Your task to perform on an android device: find which apps use the phone's location Image 0: 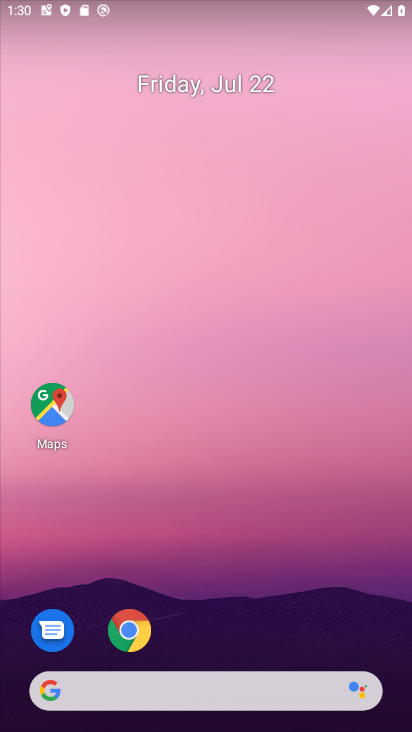
Step 0: drag from (170, 316) to (181, 134)
Your task to perform on an android device: find which apps use the phone's location Image 1: 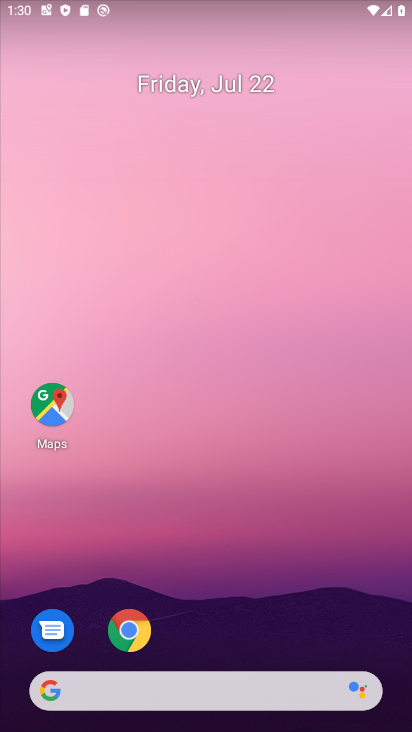
Step 1: drag from (153, 229) to (189, 49)
Your task to perform on an android device: find which apps use the phone's location Image 2: 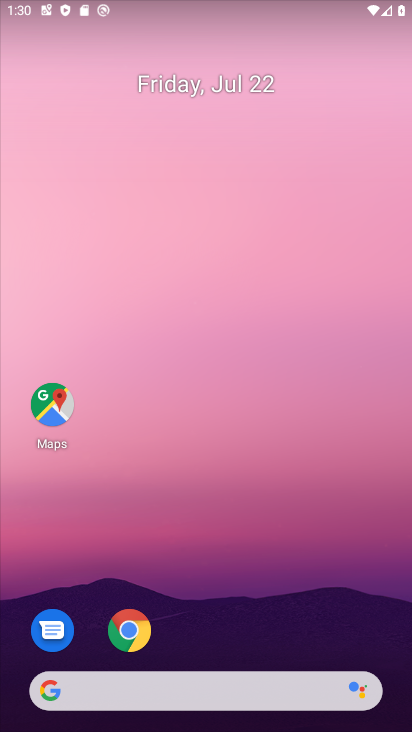
Step 2: drag from (212, 558) to (209, 14)
Your task to perform on an android device: find which apps use the phone's location Image 3: 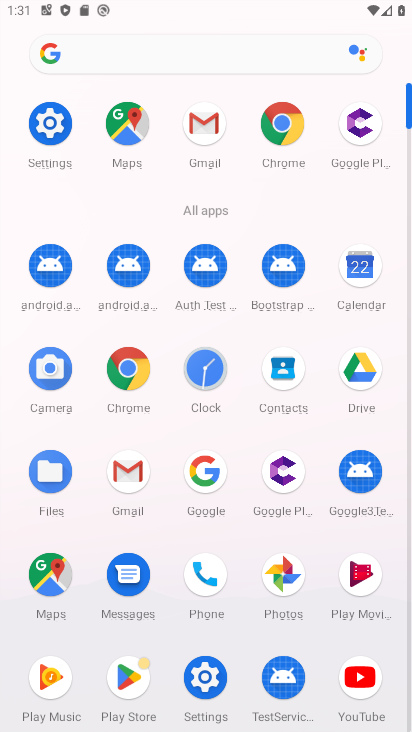
Step 3: click (58, 123)
Your task to perform on an android device: find which apps use the phone's location Image 4: 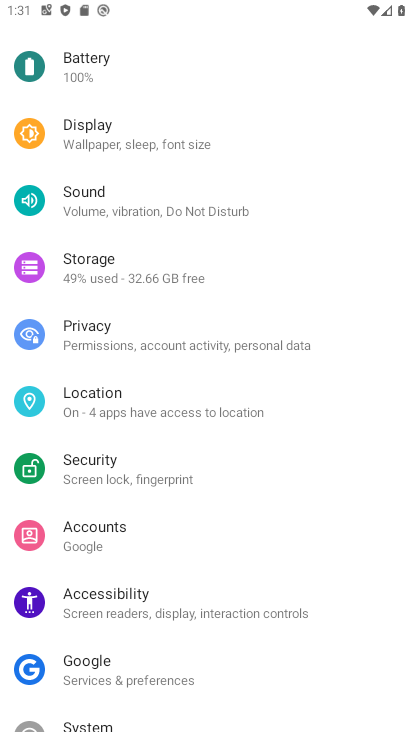
Step 4: click (129, 405)
Your task to perform on an android device: find which apps use the phone's location Image 5: 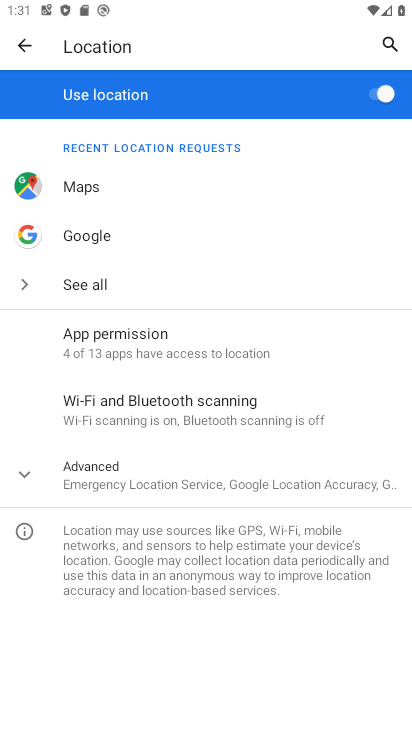
Step 5: click (107, 334)
Your task to perform on an android device: find which apps use the phone's location Image 6: 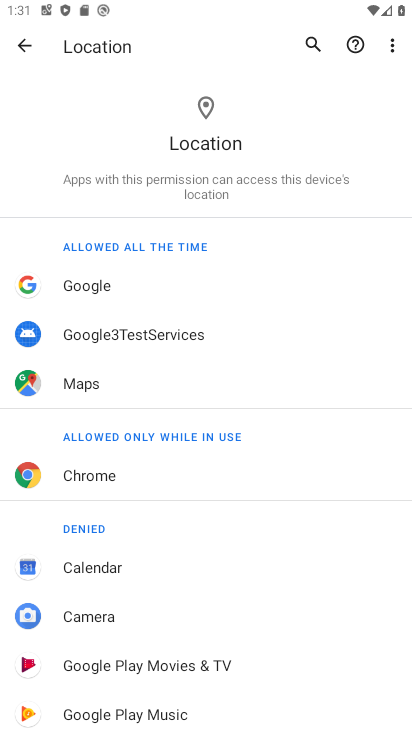
Step 6: task complete